Your task to perform on an android device: open chrome privacy settings Image 0: 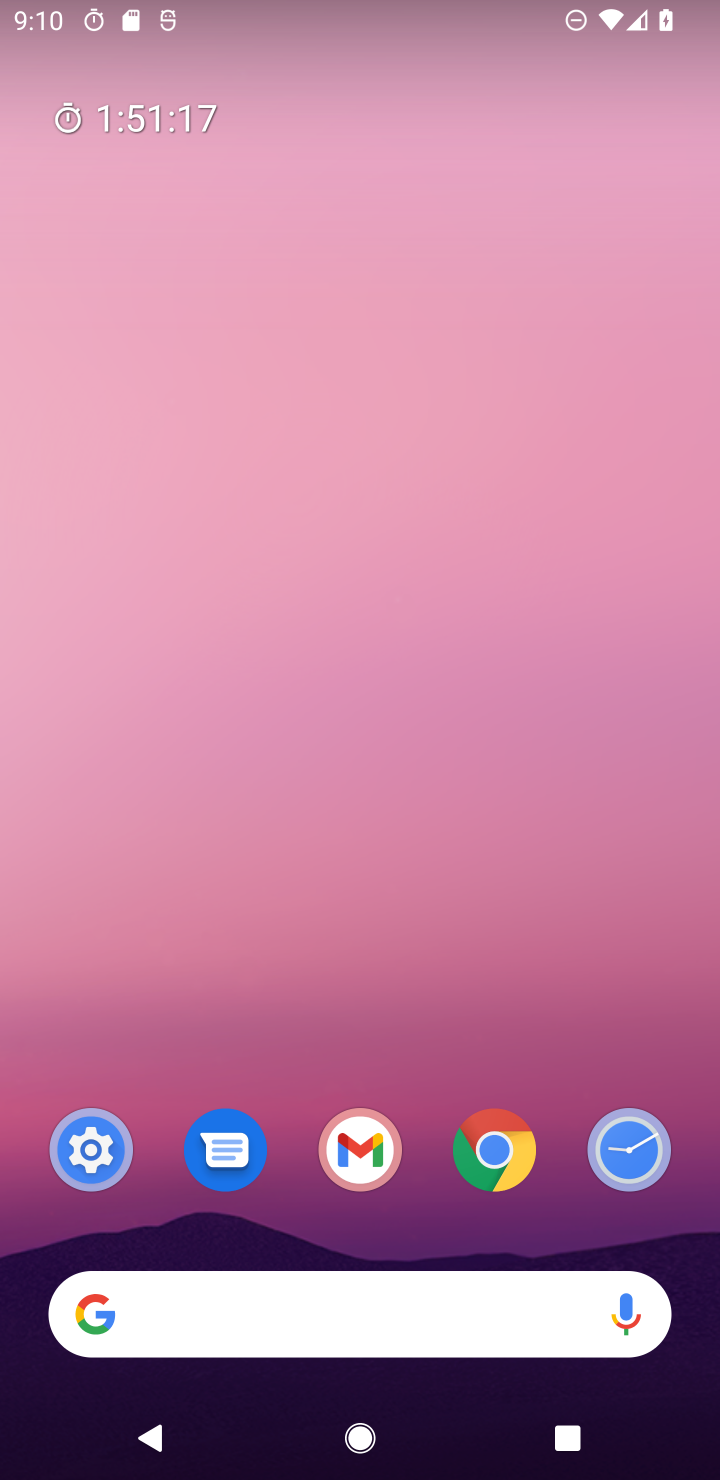
Step 0: drag from (407, 1123) to (380, 38)
Your task to perform on an android device: open chrome privacy settings Image 1: 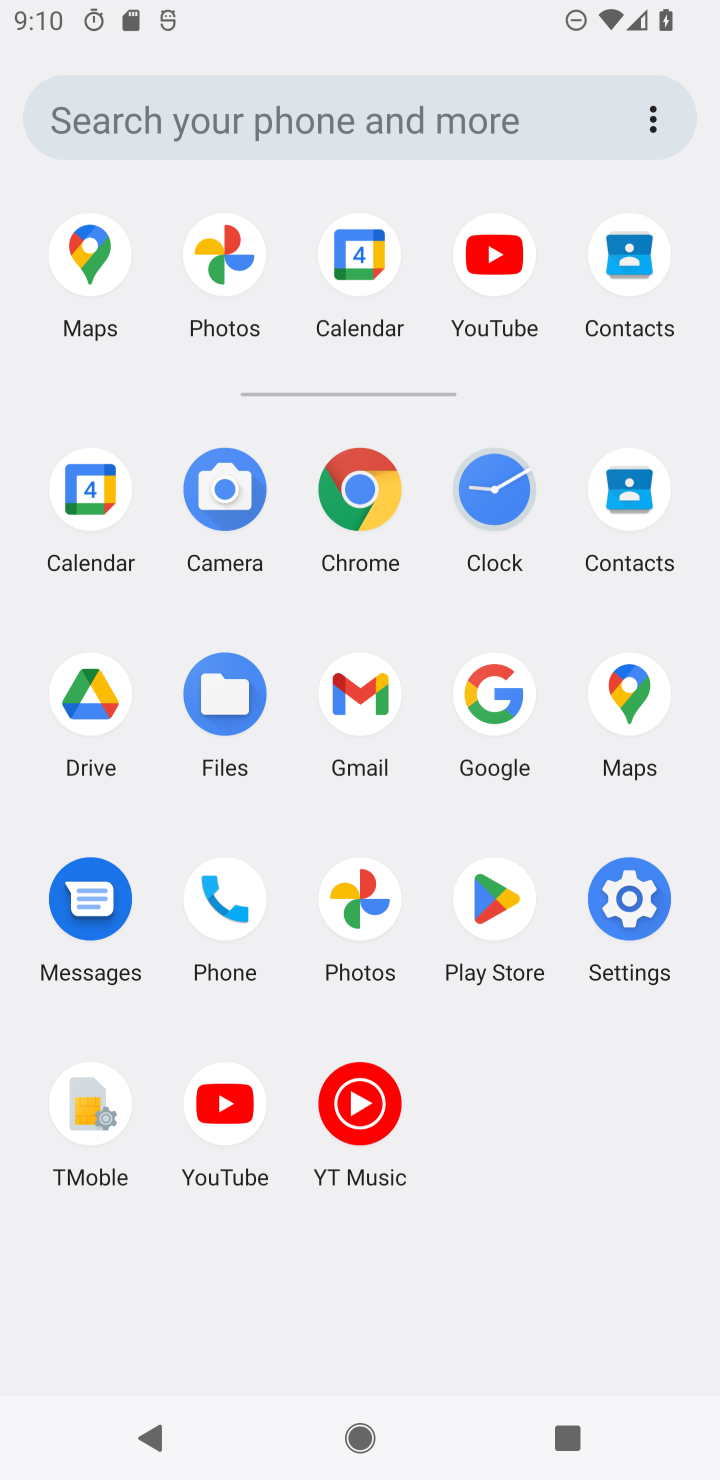
Step 1: click (380, 490)
Your task to perform on an android device: open chrome privacy settings Image 2: 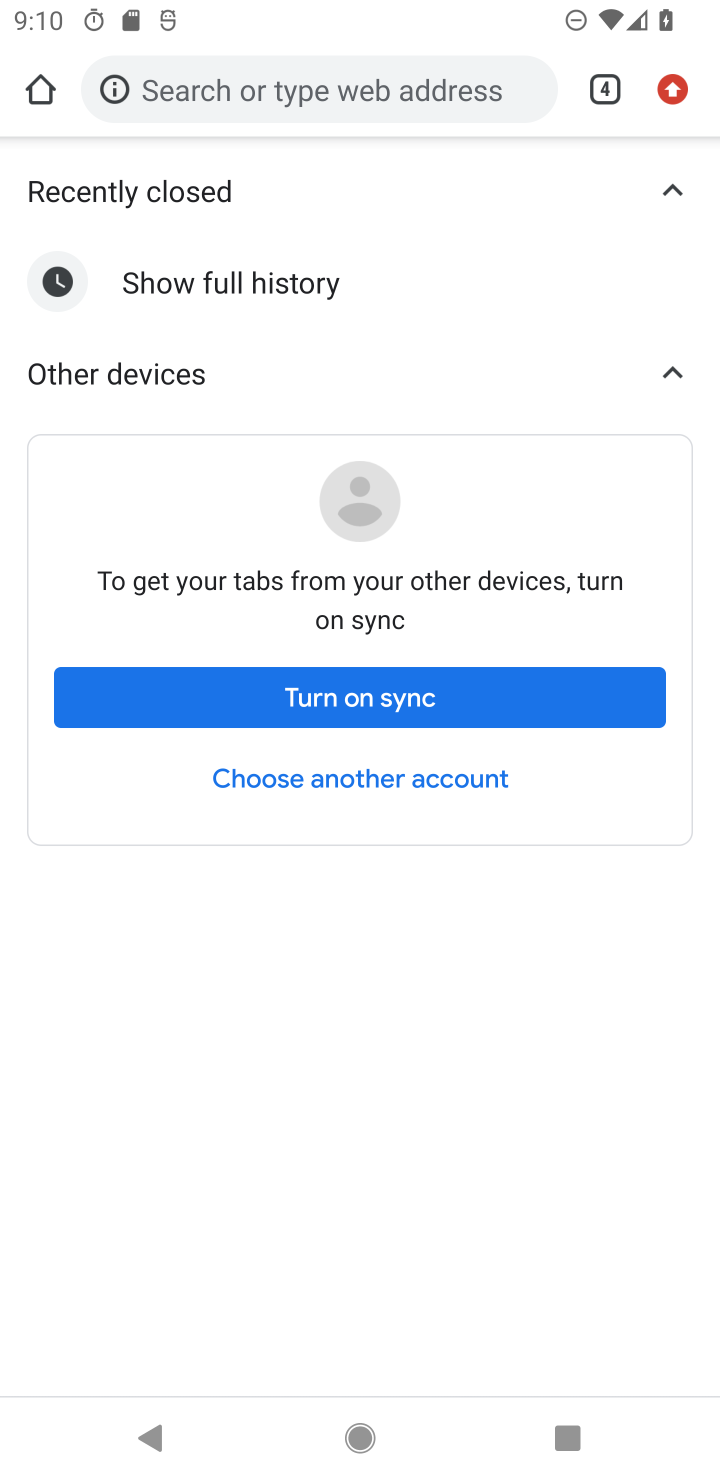
Step 2: drag from (667, 80) to (410, 911)
Your task to perform on an android device: open chrome privacy settings Image 3: 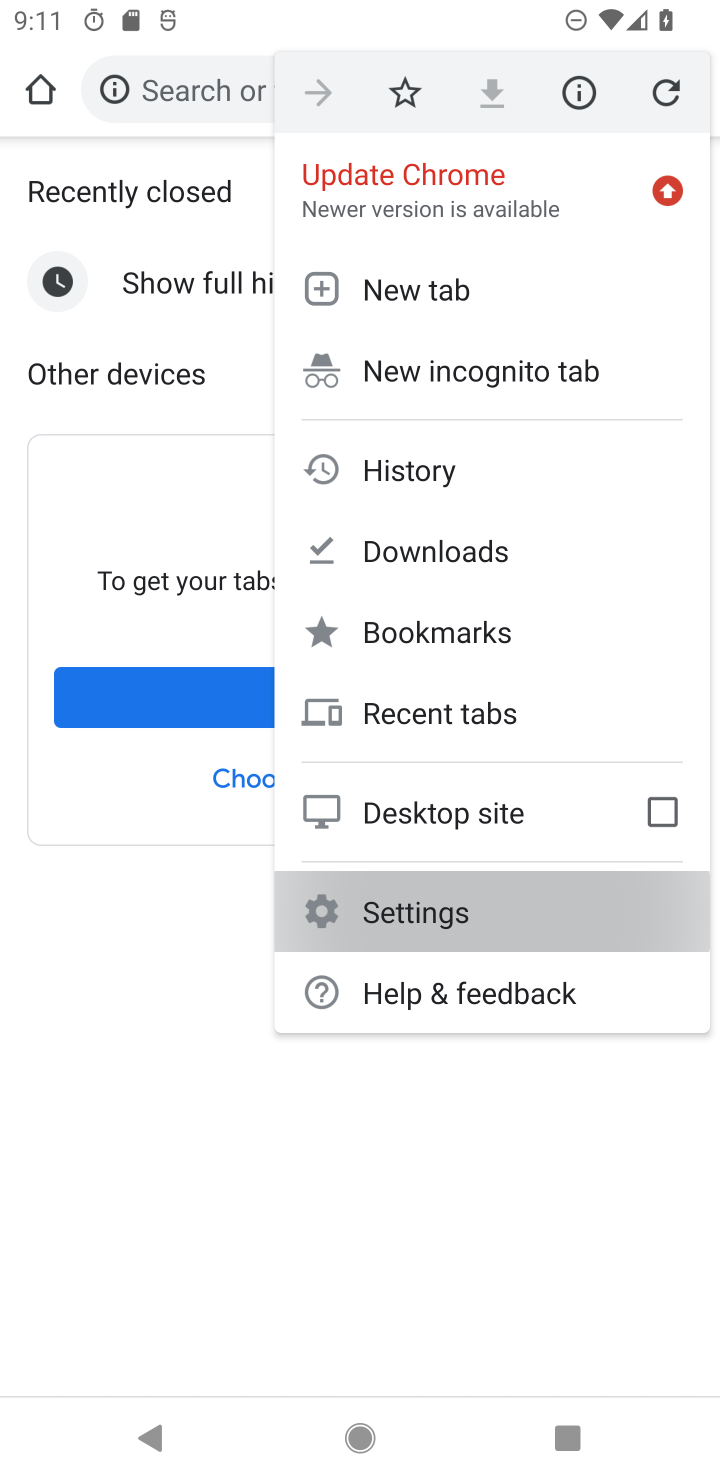
Step 3: click (410, 911)
Your task to perform on an android device: open chrome privacy settings Image 4: 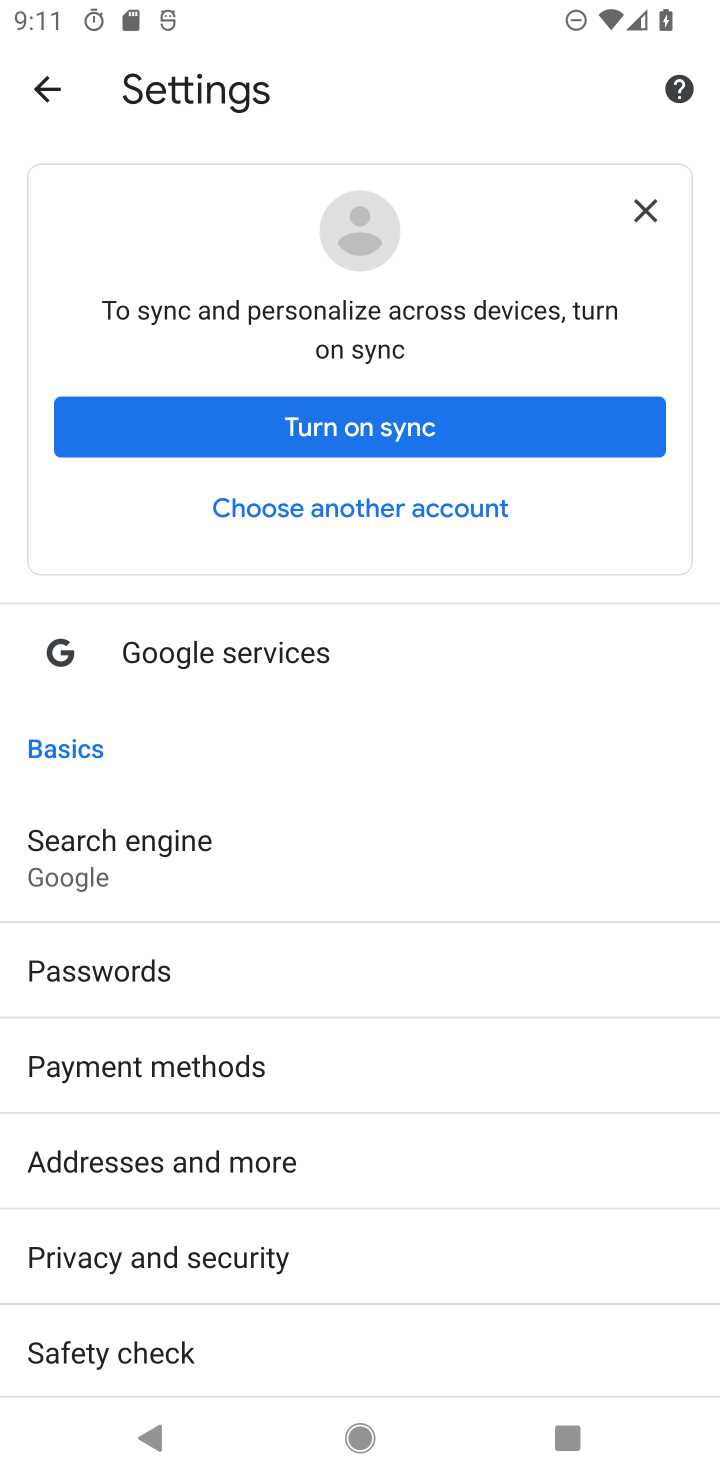
Step 4: drag from (282, 1065) to (396, 15)
Your task to perform on an android device: open chrome privacy settings Image 5: 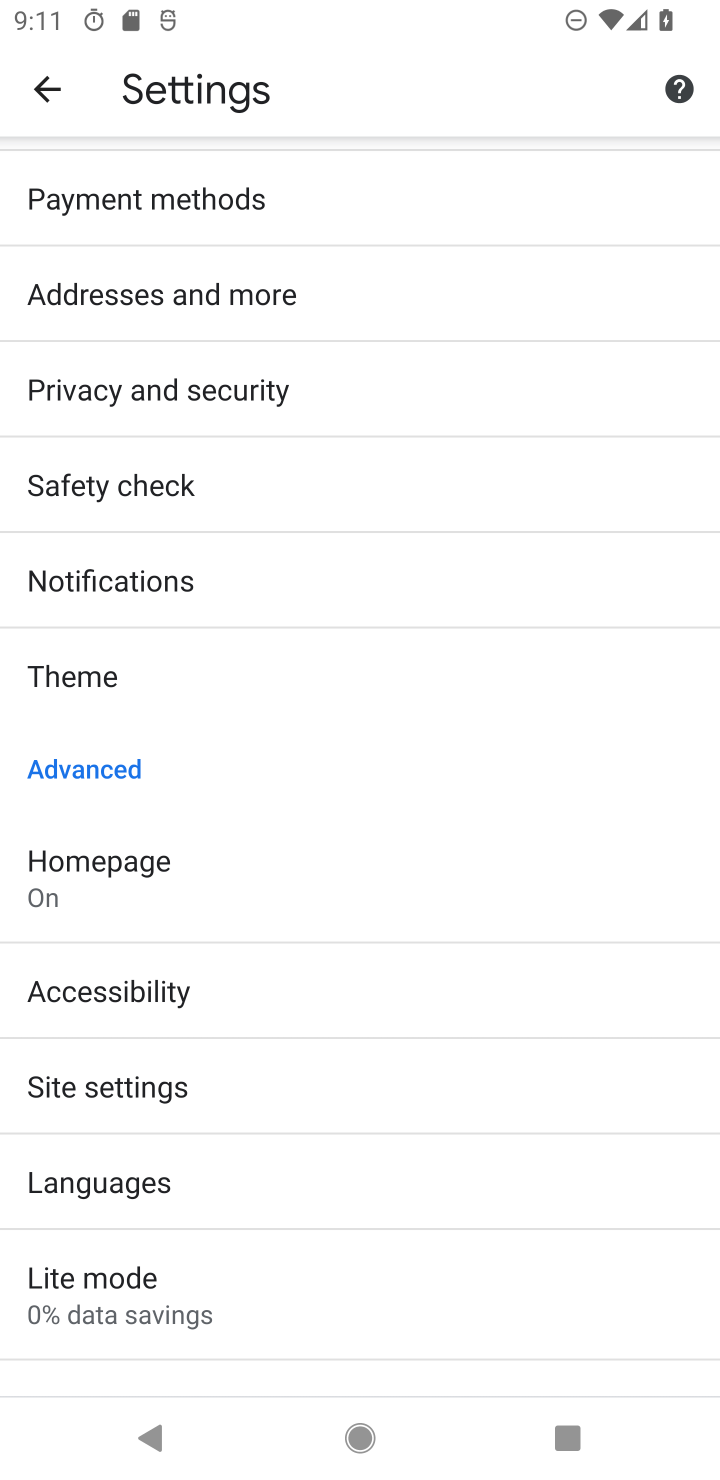
Step 5: drag from (115, 1176) to (157, 753)
Your task to perform on an android device: open chrome privacy settings Image 6: 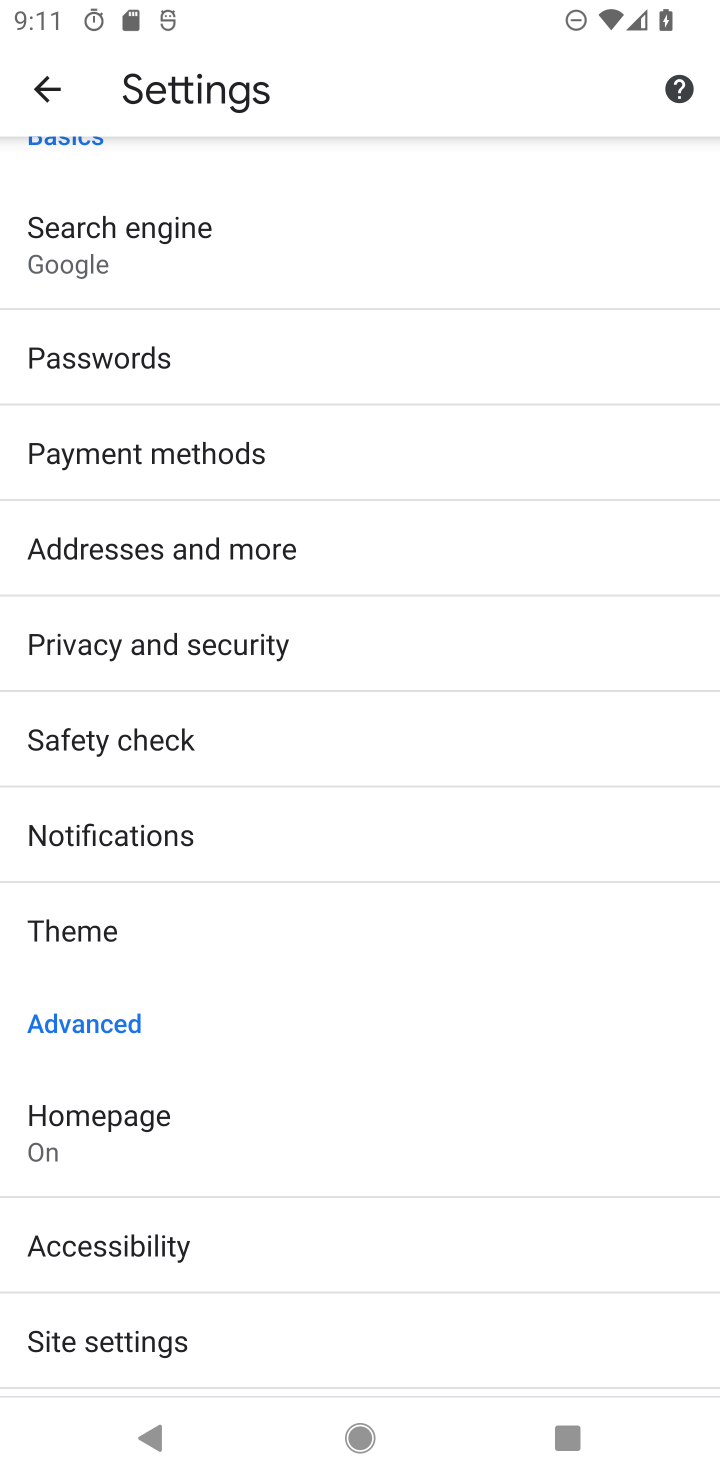
Step 6: drag from (298, 439) to (294, 646)
Your task to perform on an android device: open chrome privacy settings Image 7: 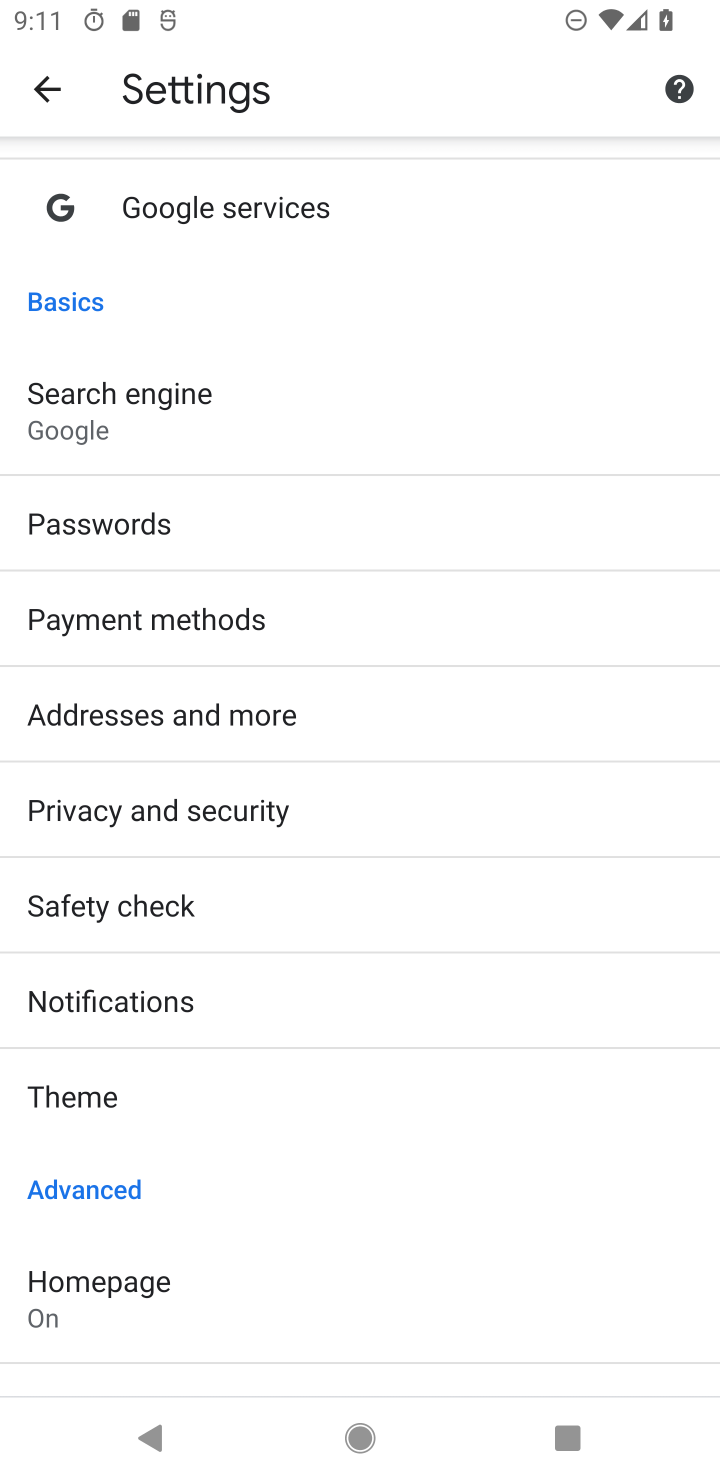
Step 7: click (184, 793)
Your task to perform on an android device: open chrome privacy settings Image 8: 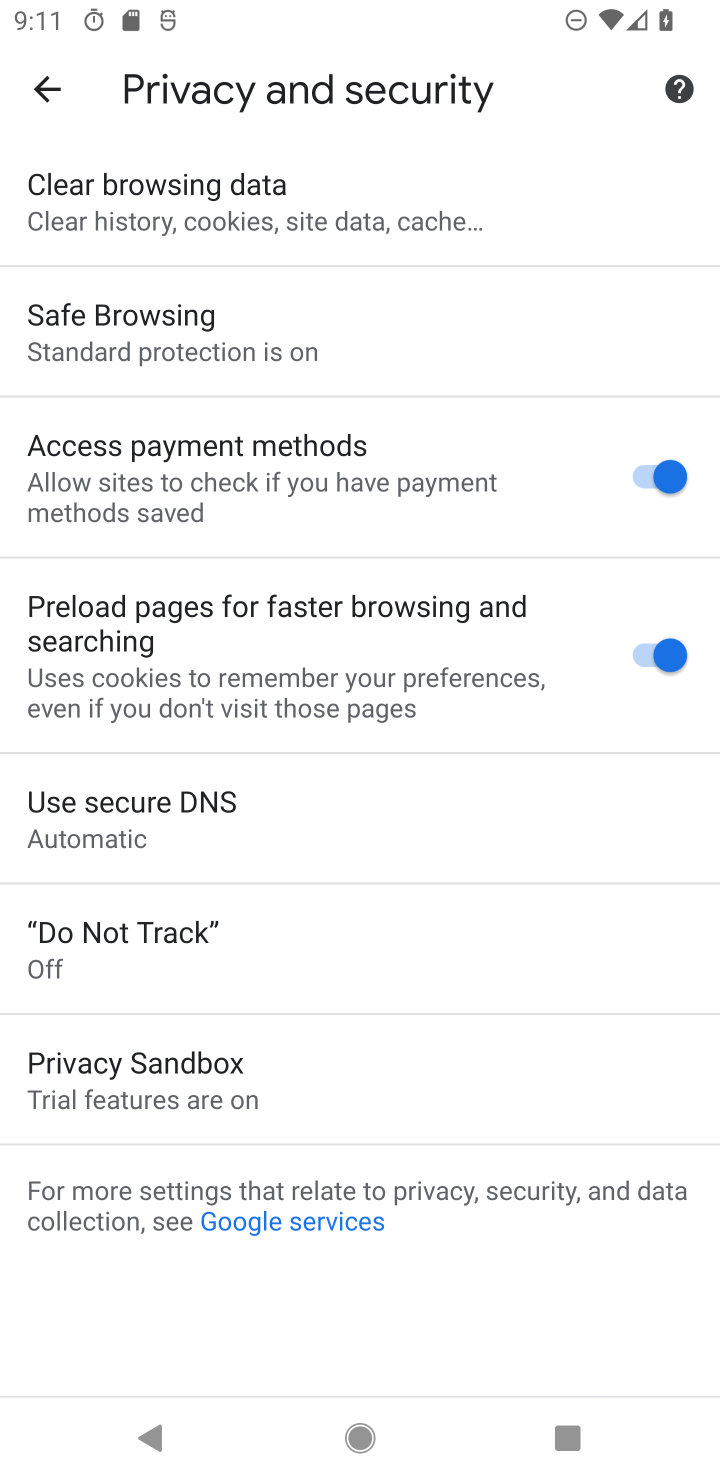
Step 8: task complete